Your task to perform on an android device: move an email to a new category in the gmail app Image 0: 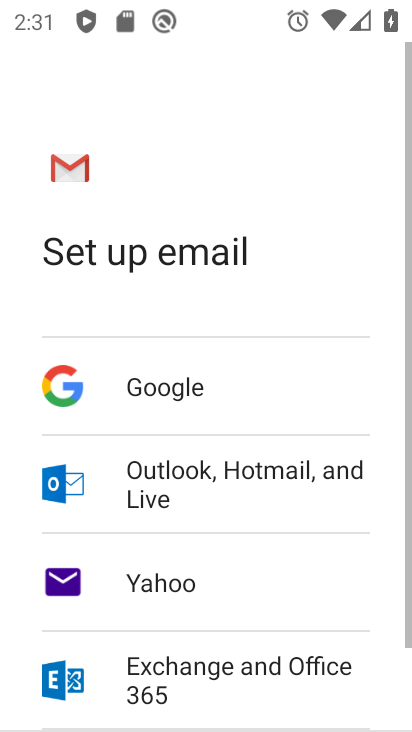
Step 0: press home button
Your task to perform on an android device: move an email to a new category in the gmail app Image 1: 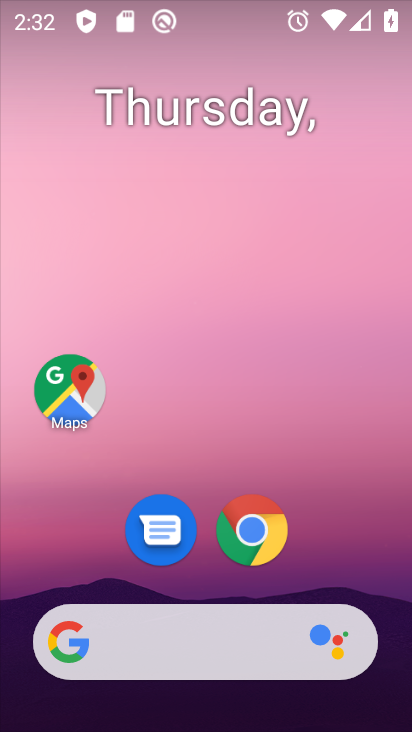
Step 1: drag from (247, 724) to (297, 5)
Your task to perform on an android device: move an email to a new category in the gmail app Image 2: 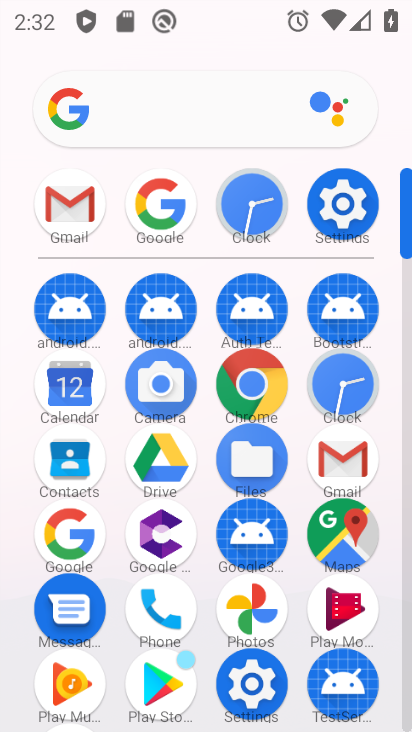
Step 2: click (64, 210)
Your task to perform on an android device: move an email to a new category in the gmail app Image 3: 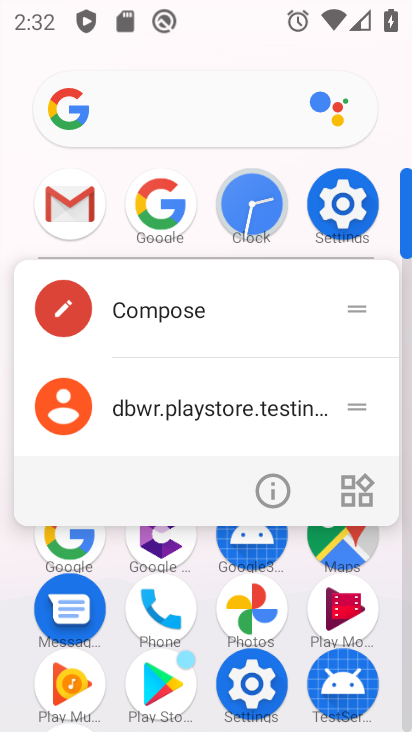
Step 3: click (62, 180)
Your task to perform on an android device: move an email to a new category in the gmail app Image 4: 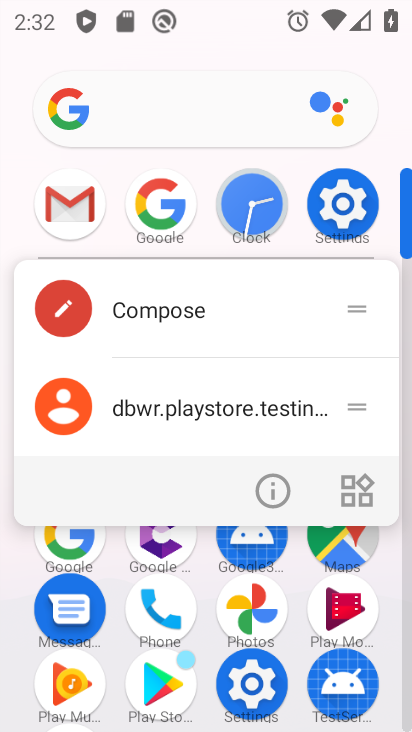
Step 4: click (73, 208)
Your task to perform on an android device: move an email to a new category in the gmail app Image 5: 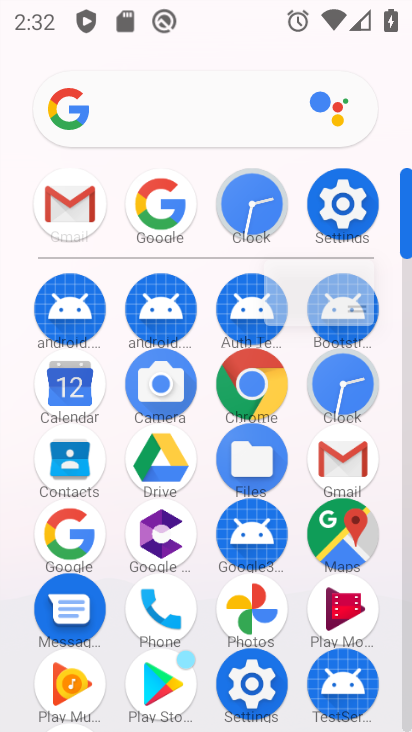
Step 5: click (73, 208)
Your task to perform on an android device: move an email to a new category in the gmail app Image 6: 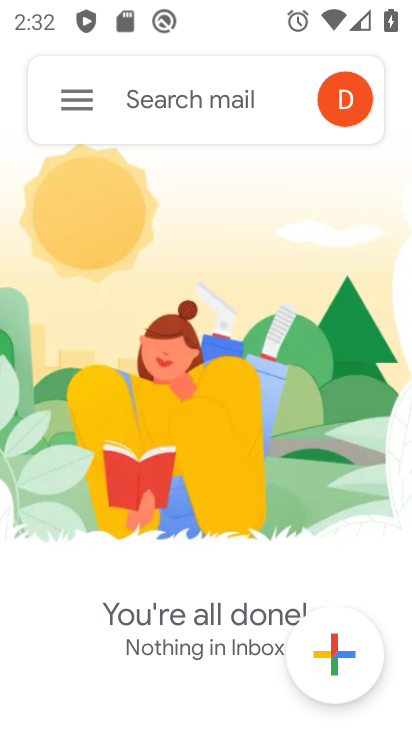
Step 6: task complete